Your task to perform on an android device: Open Maps and search for coffee Image 0: 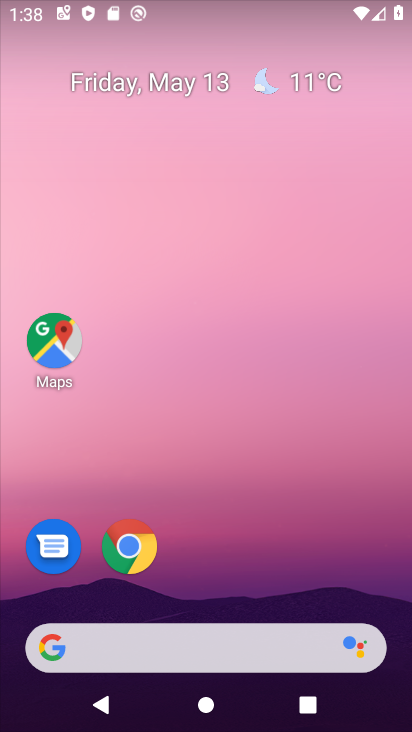
Step 0: drag from (219, 535) to (241, 347)
Your task to perform on an android device: Open Maps and search for coffee Image 1: 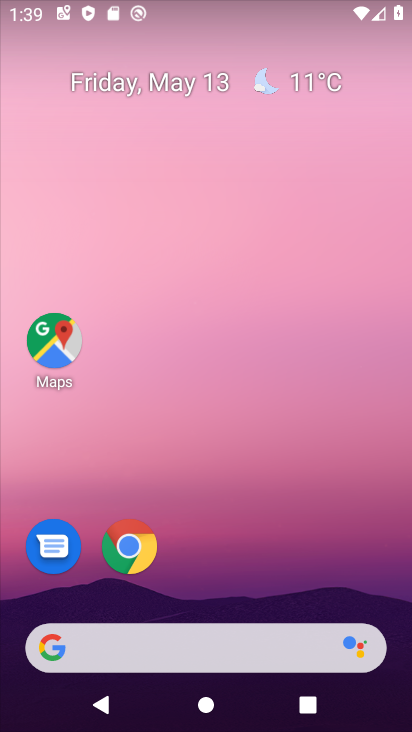
Step 1: drag from (196, 651) to (218, 116)
Your task to perform on an android device: Open Maps and search for coffee Image 2: 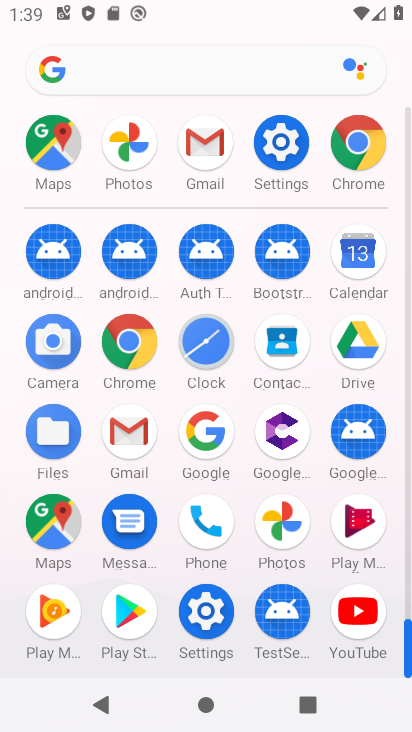
Step 2: click (52, 526)
Your task to perform on an android device: Open Maps and search for coffee Image 3: 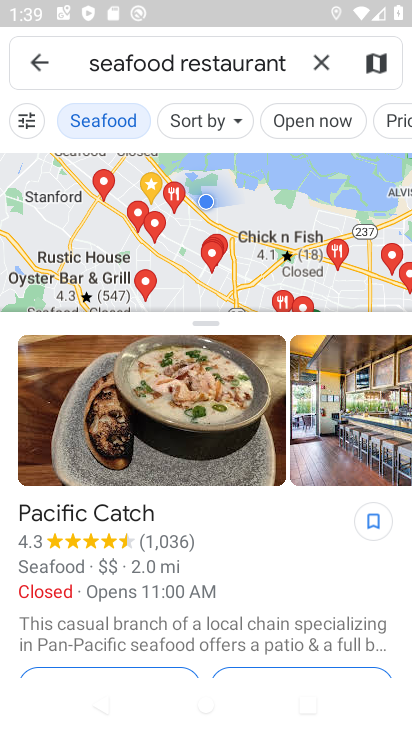
Step 3: click (319, 70)
Your task to perform on an android device: Open Maps and search for coffee Image 4: 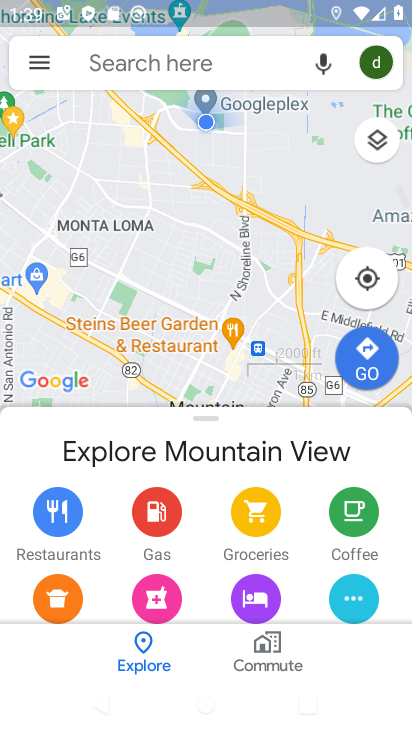
Step 4: click (195, 65)
Your task to perform on an android device: Open Maps and search for coffee Image 5: 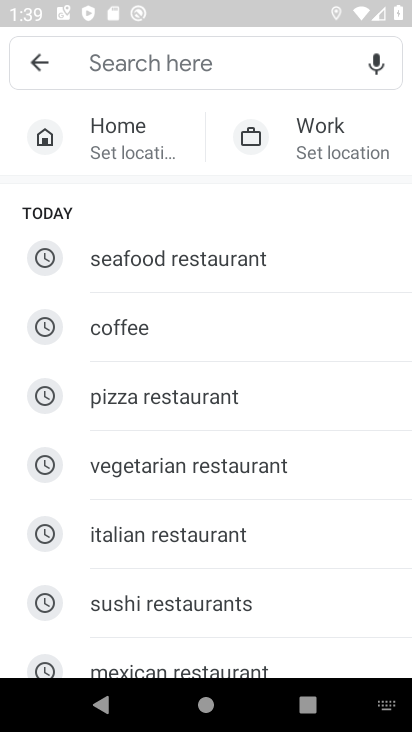
Step 5: click (203, 347)
Your task to perform on an android device: Open Maps and search for coffee Image 6: 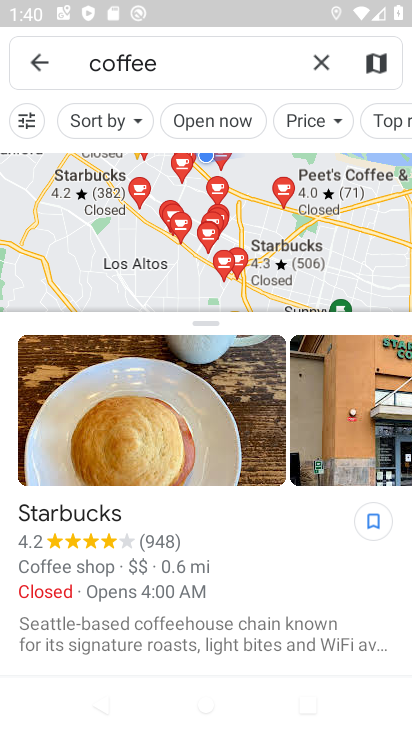
Step 6: task complete